Your task to perform on an android device: change the clock style Image 0: 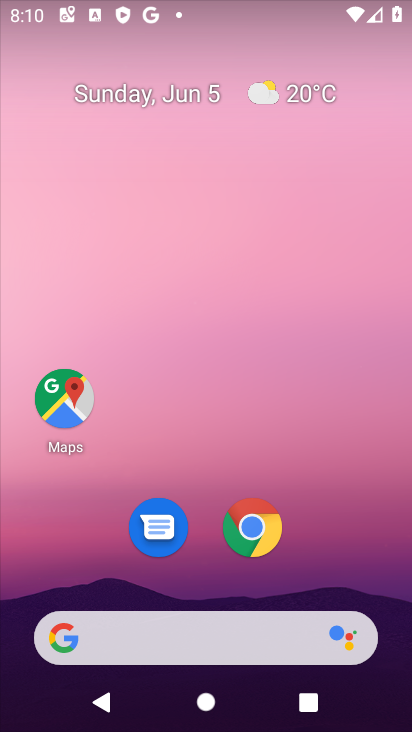
Step 0: drag from (186, 596) to (314, 44)
Your task to perform on an android device: change the clock style Image 1: 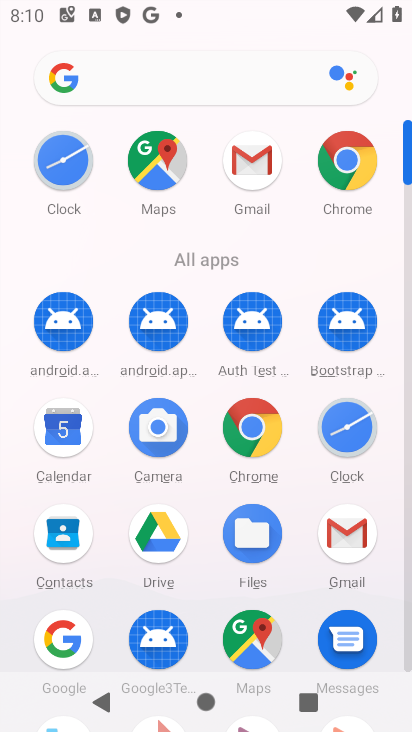
Step 1: click (343, 416)
Your task to perform on an android device: change the clock style Image 2: 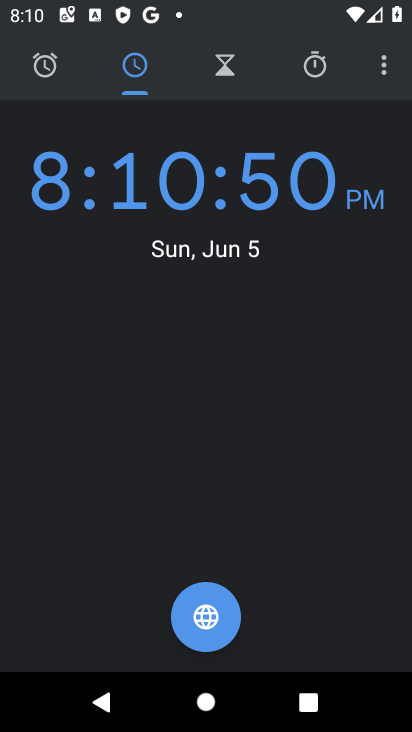
Step 2: click (382, 69)
Your task to perform on an android device: change the clock style Image 3: 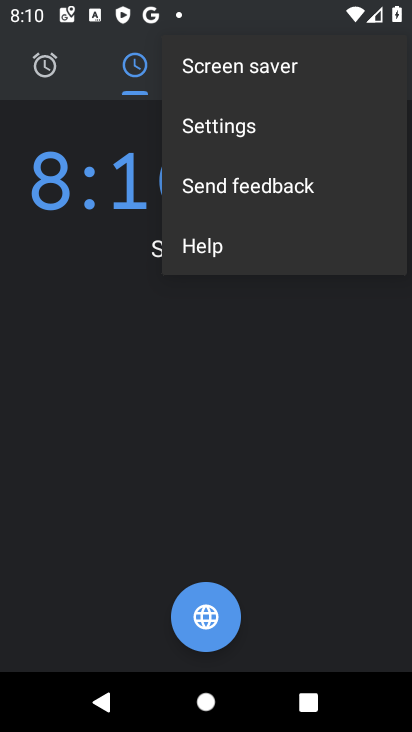
Step 3: click (208, 149)
Your task to perform on an android device: change the clock style Image 4: 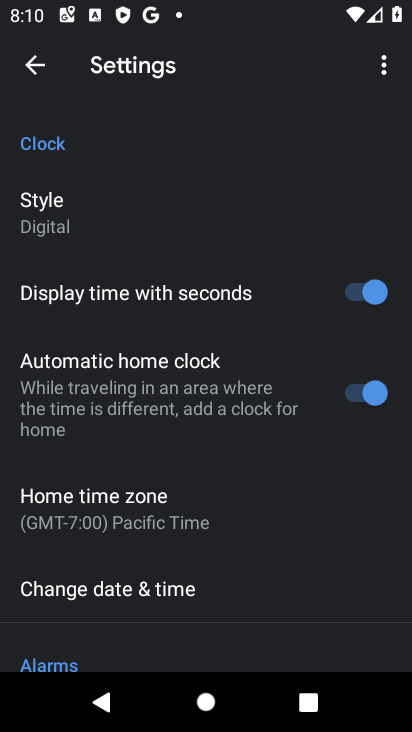
Step 4: click (53, 235)
Your task to perform on an android device: change the clock style Image 5: 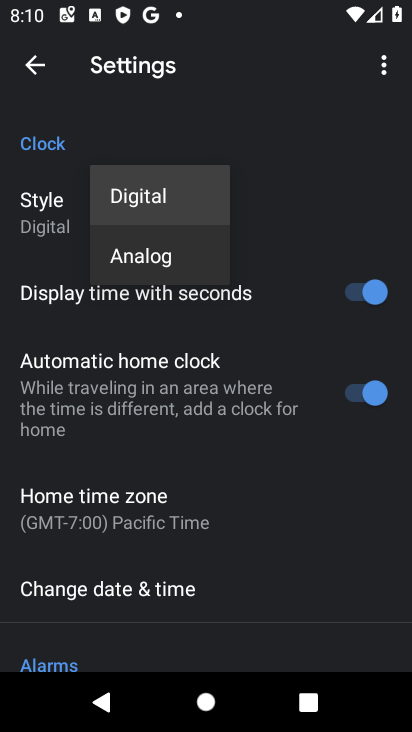
Step 5: click (181, 275)
Your task to perform on an android device: change the clock style Image 6: 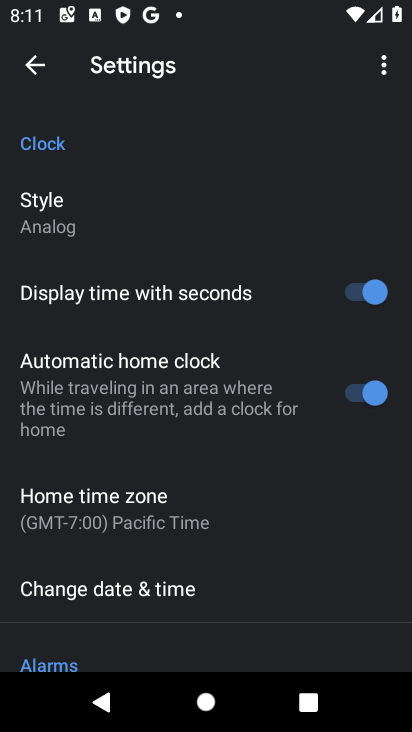
Step 6: task complete